Your task to perform on an android device: Google the capital of Chile Image 0: 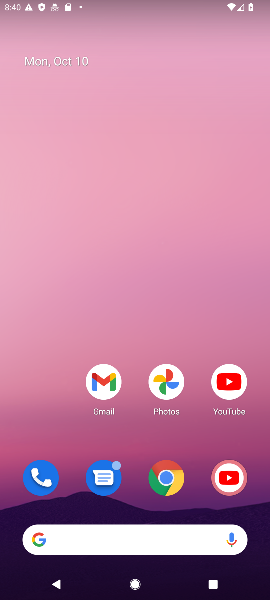
Step 0: click (113, 539)
Your task to perform on an android device: Google the capital of Chile Image 1: 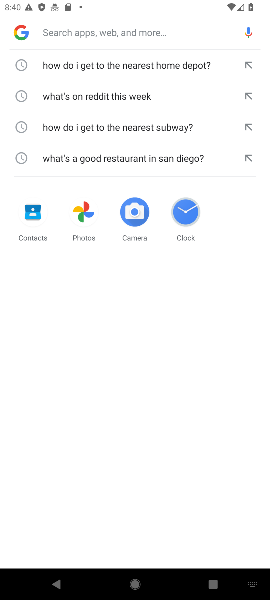
Step 1: type "the capital of Chile"
Your task to perform on an android device: Google the capital of Chile Image 2: 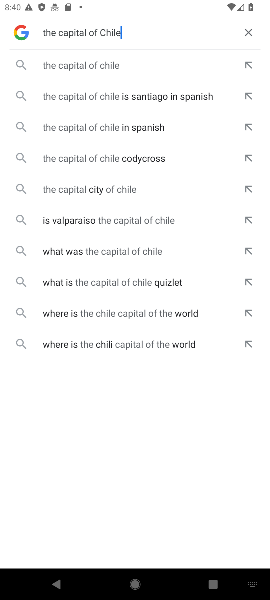
Step 2: click (125, 69)
Your task to perform on an android device: Google the capital of Chile Image 3: 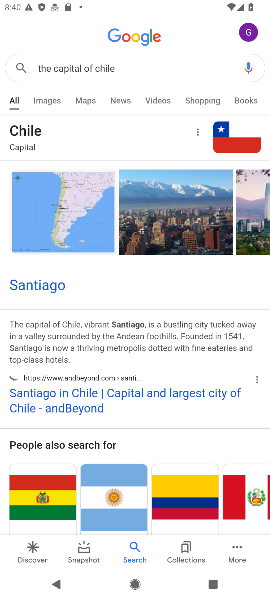
Step 3: task complete